Your task to perform on an android device: read, delete, or share a saved page in the chrome app Image 0: 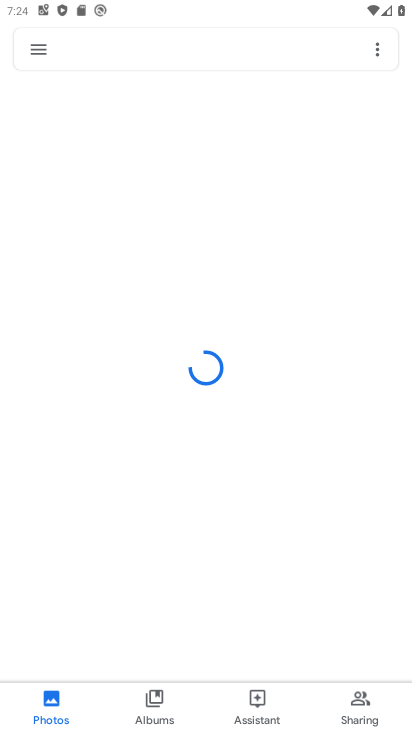
Step 0: press home button
Your task to perform on an android device: read, delete, or share a saved page in the chrome app Image 1: 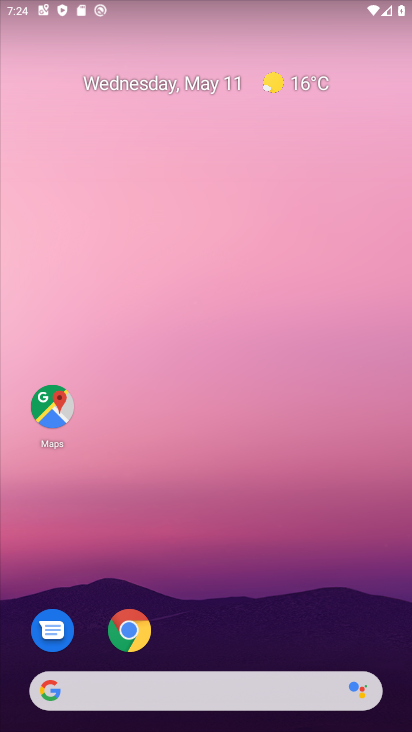
Step 1: drag from (342, 582) to (323, 215)
Your task to perform on an android device: read, delete, or share a saved page in the chrome app Image 2: 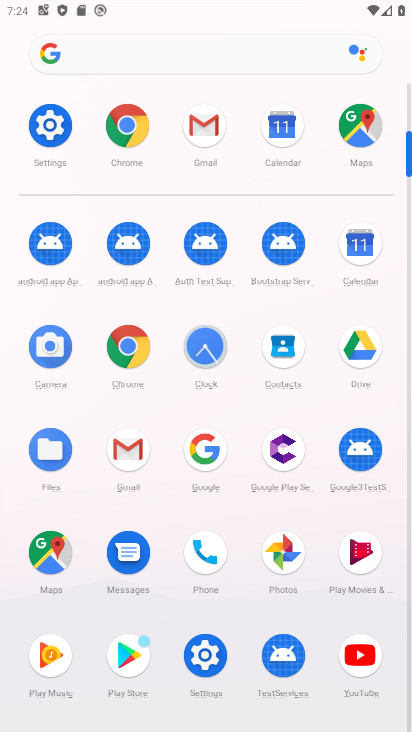
Step 2: click (137, 130)
Your task to perform on an android device: read, delete, or share a saved page in the chrome app Image 3: 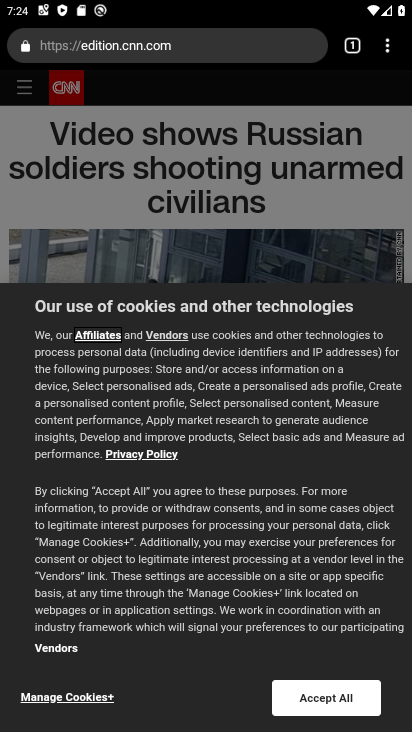
Step 3: task complete